Your task to perform on an android device: change the upload size in google photos Image 0: 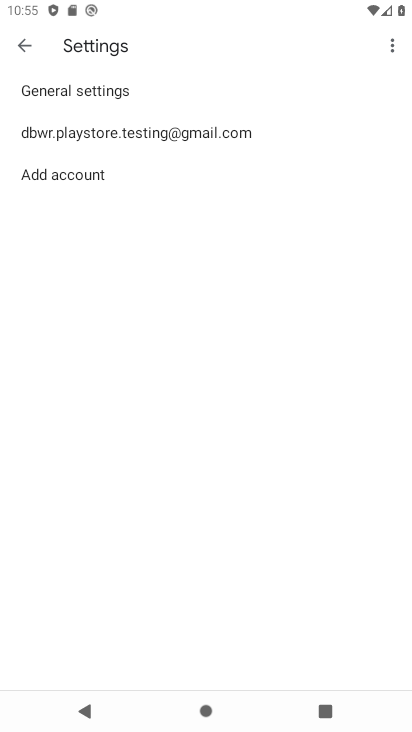
Step 0: press home button
Your task to perform on an android device: change the upload size in google photos Image 1: 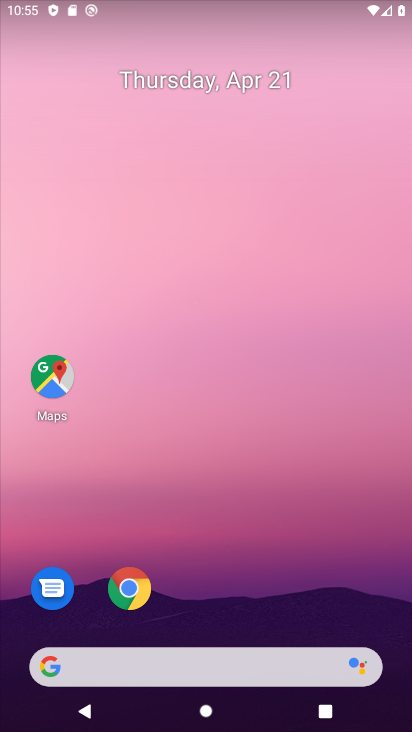
Step 1: drag from (201, 594) to (201, 52)
Your task to perform on an android device: change the upload size in google photos Image 2: 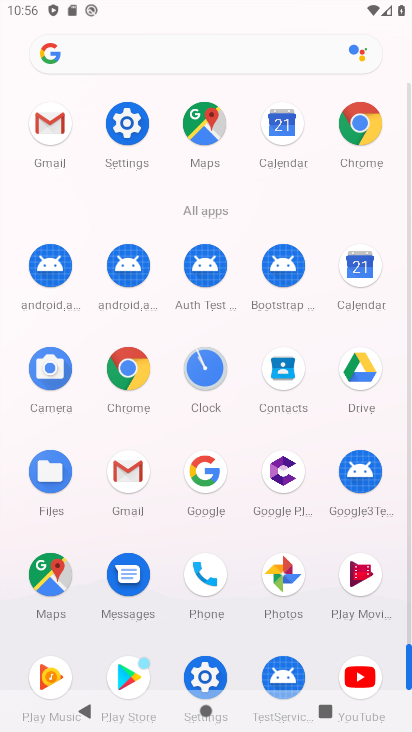
Step 2: click (282, 591)
Your task to perform on an android device: change the upload size in google photos Image 3: 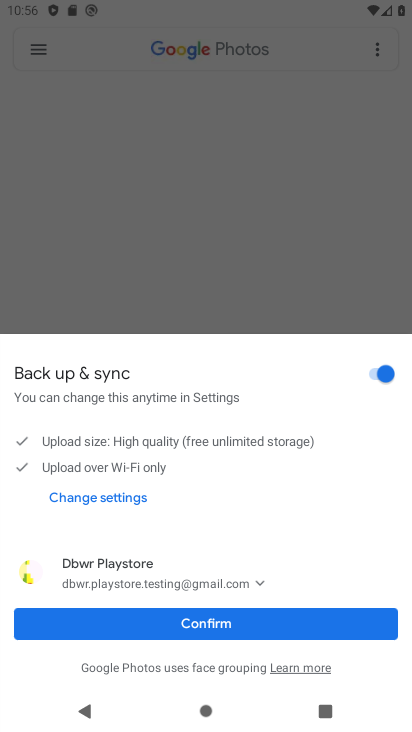
Step 3: click (256, 632)
Your task to perform on an android device: change the upload size in google photos Image 4: 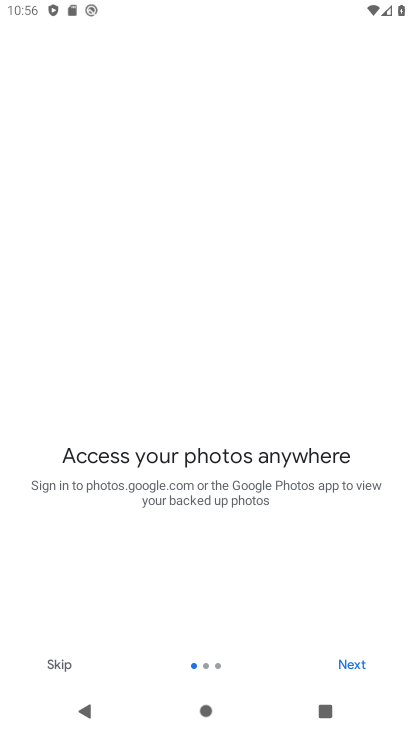
Step 4: click (352, 662)
Your task to perform on an android device: change the upload size in google photos Image 5: 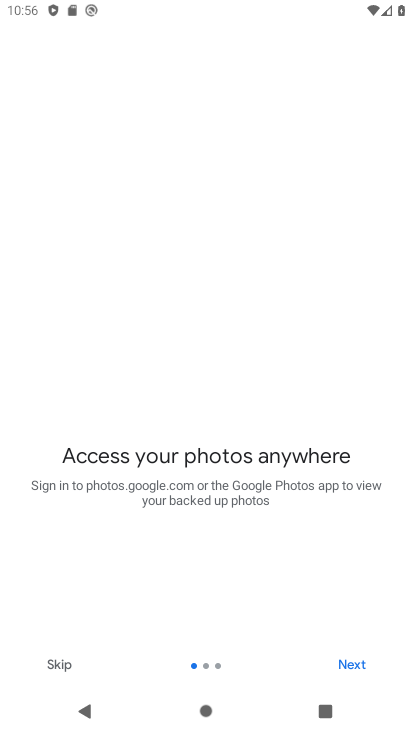
Step 5: click (352, 662)
Your task to perform on an android device: change the upload size in google photos Image 6: 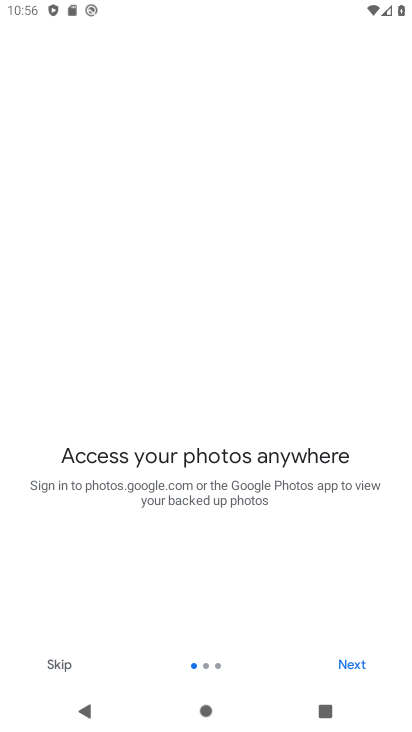
Step 6: click (352, 662)
Your task to perform on an android device: change the upload size in google photos Image 7: 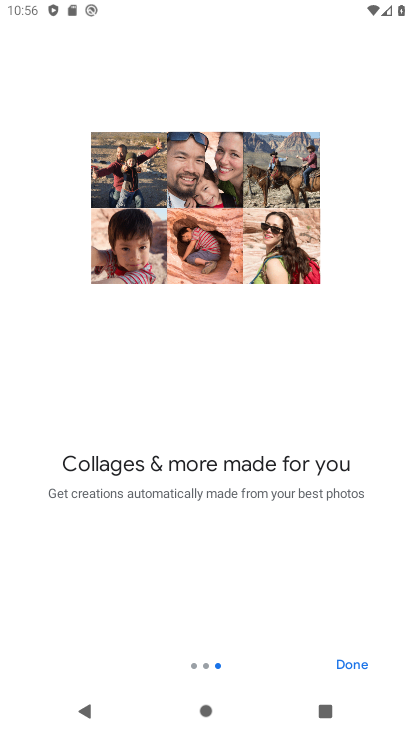
Step 7: click (351, 661)
Your task to perform on an android device: change the upload size in google photos Image 8: 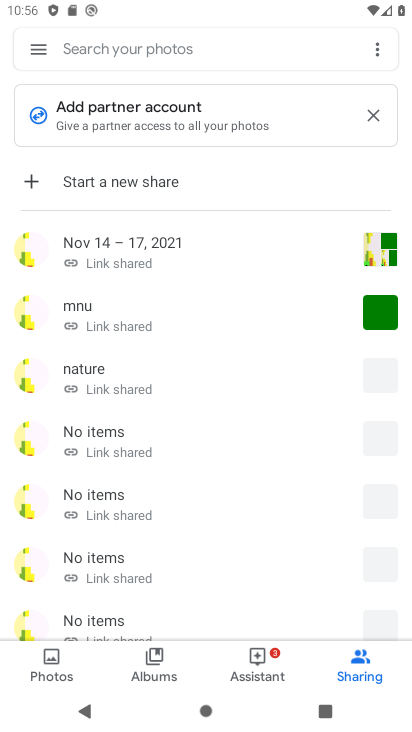
Step 8: click (40, 53)
Your task to perform on an android device: change the upload size in google photos Image 9: 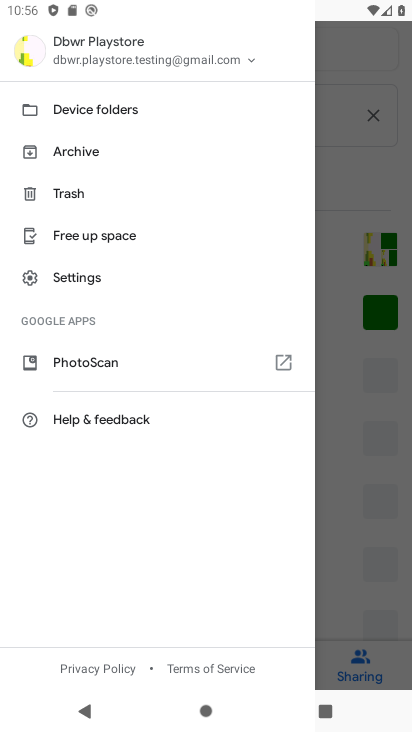
Step 9: click (94, 278)
Your task to perform on an android device: change the upload size in google photos Image 10: 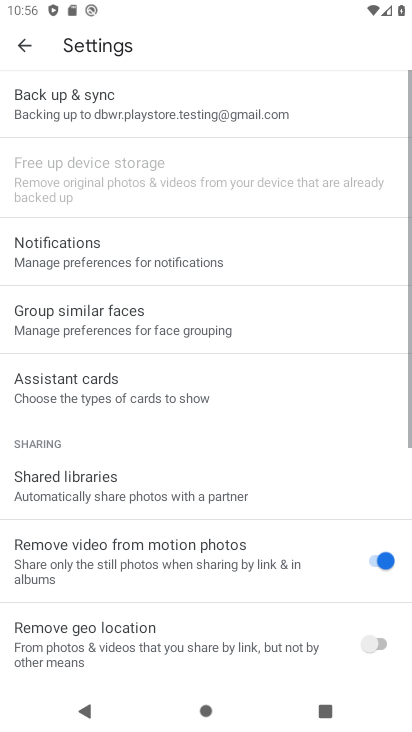
Step 10: click (112, 103)
Your task to perform on an android device: change the upload size in google photos Image 11: 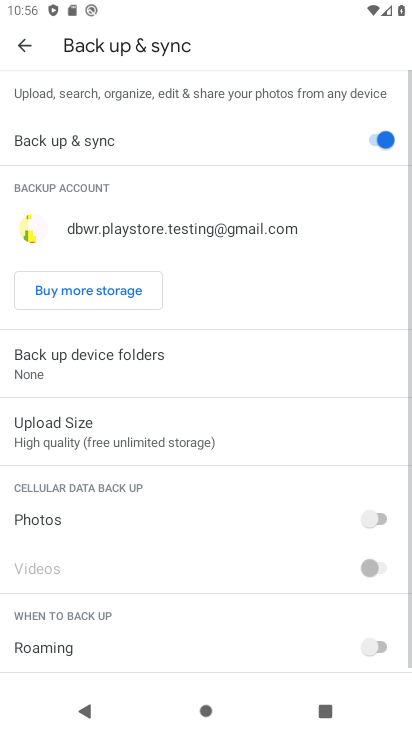
Step 11: click (126, 452)
Your task to perform on an android device: change the upload size in google photos Image 12: 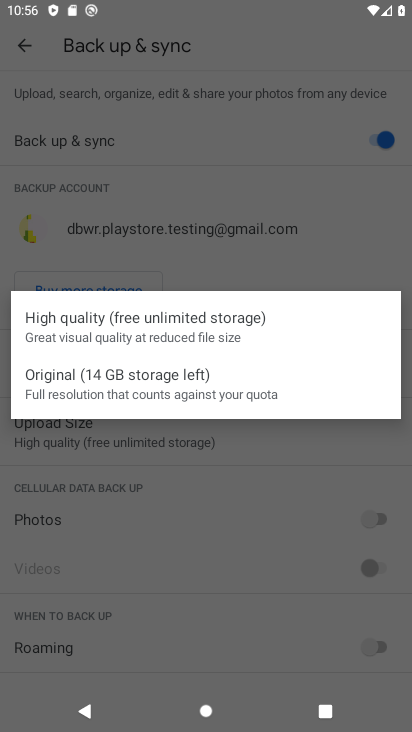
Step 12: click (131, 383)
Your task to perform on an android device: change the upload size in google photos Image 13: 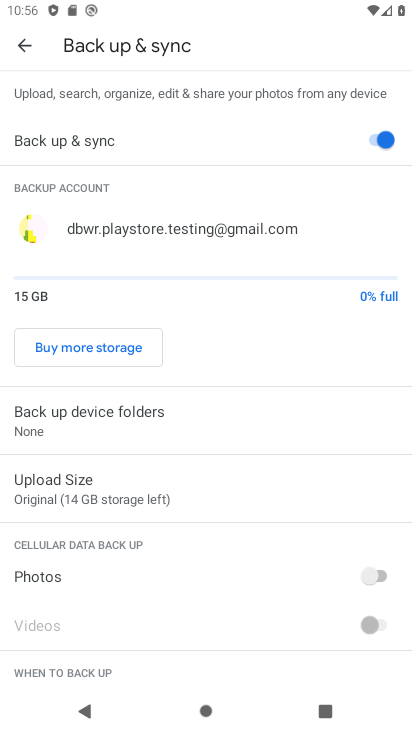
Step 13: task complete